Your task to perform on an android device: turn off javascript in the chrome app Image 0: 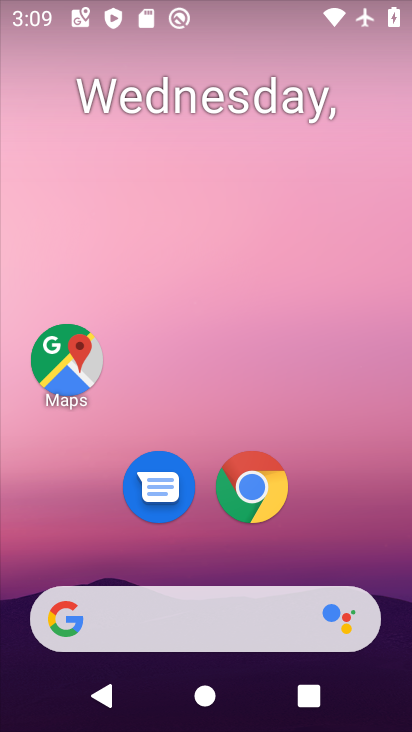
Step 0: drag from (326, 461) to (2, 321)
Your task to perform on an android device: turn off javascript in the chrome app Image 1: 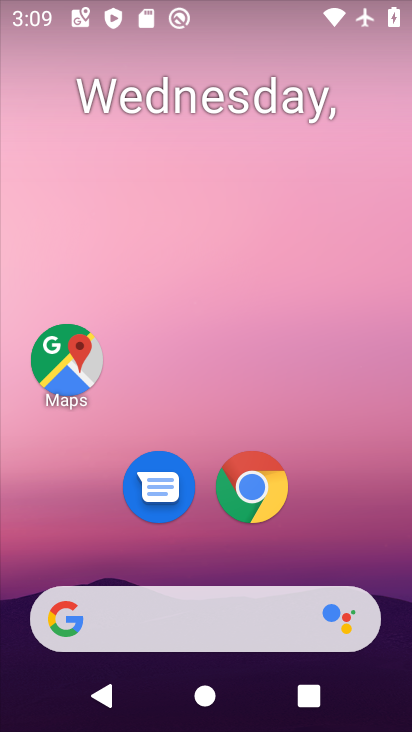
Step 1: drag from (294, 578) to (188, 3)
Your task to perform on an android device: turn off javascript in the chrome app Image 2: 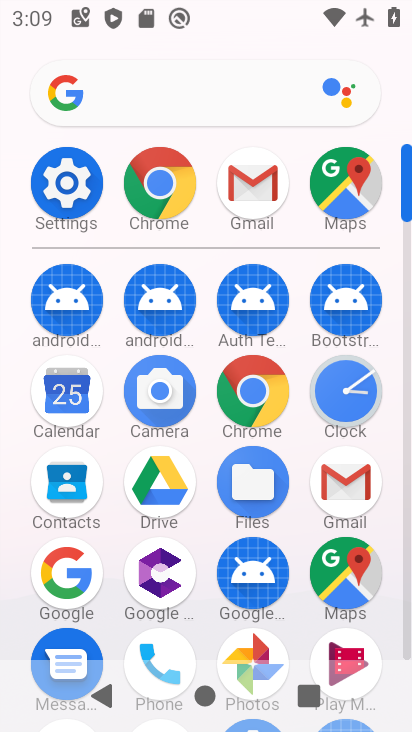
Step 2: click (144, 171)
Your task to perform on an android device: turn off javascript in the chrome app Image 3: 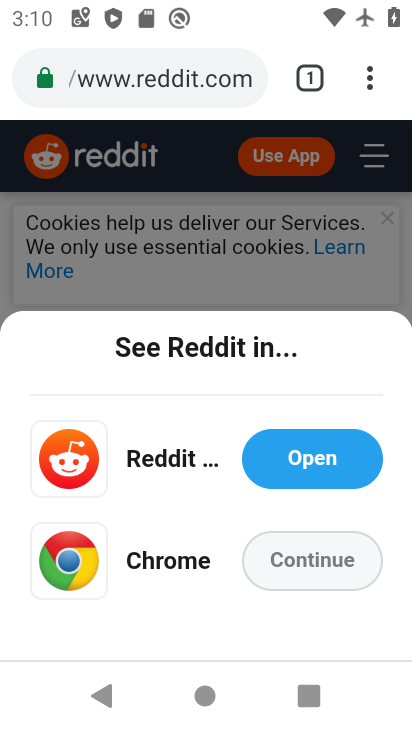
Step 3: drag from (360, 85) to (155, 570)
Your task to perform on an android device: turn off javascript in the chrome app Image 4: 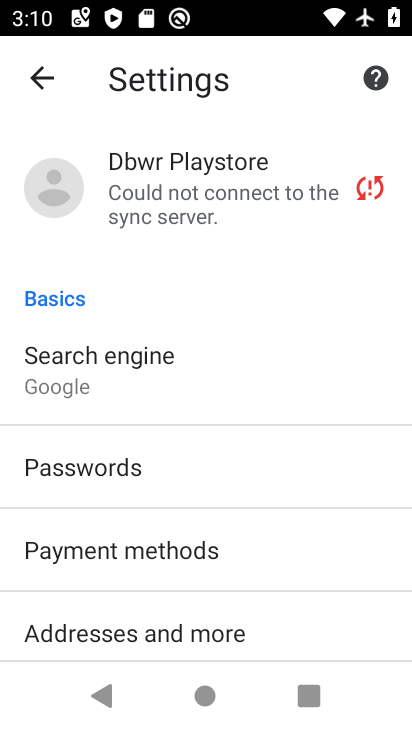
Step 4: drag from (150, 583) to (173, 75)
Your task to perform on an android device: turn off javascript in the chrome app Image 5: 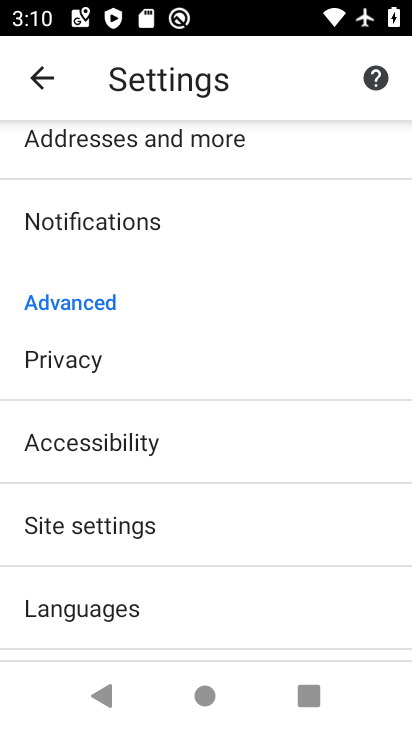
Step 5: click (135, 526)
Your task to perform on an android device: turn off javascript in the chrome app Image 6: 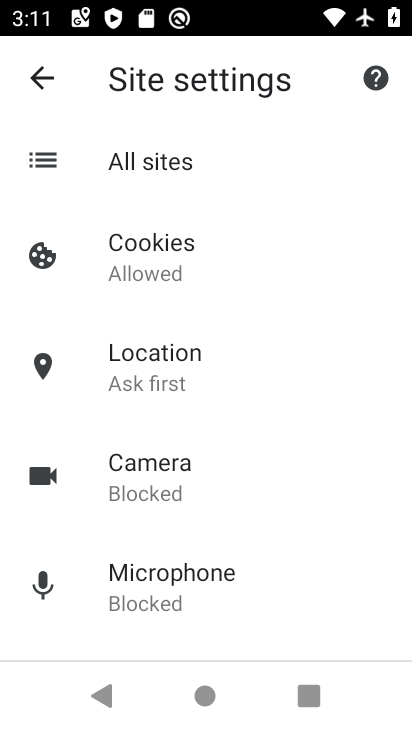
Step 6: drag from (173, 543) to (203, 204)
Your task to perform on an android device: turn off javascript in the chrome app Image 7: 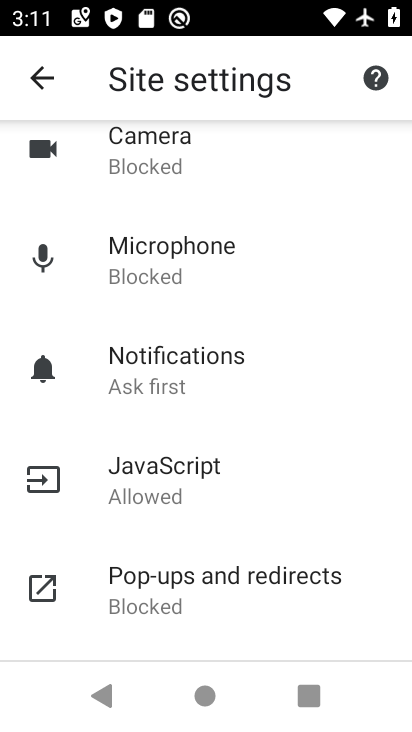
Step 7: click (133, 475)
Your task to perform on an android device: turn off javascript in the chrome app Image 8: 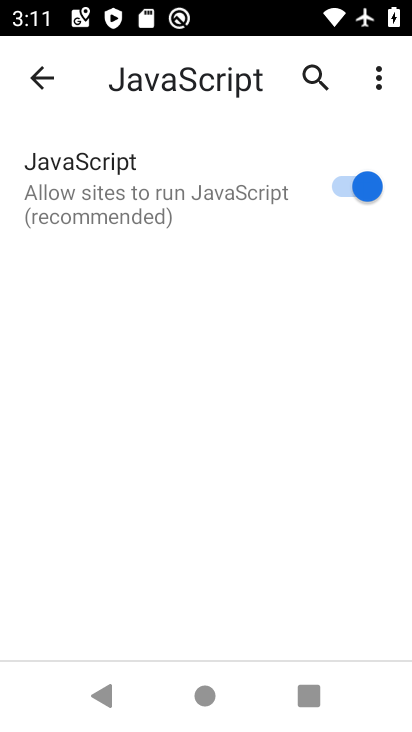
Step 8: click (366, 188)
Your task to perform on an android device: turn off javascript in the chrome app Image 9: 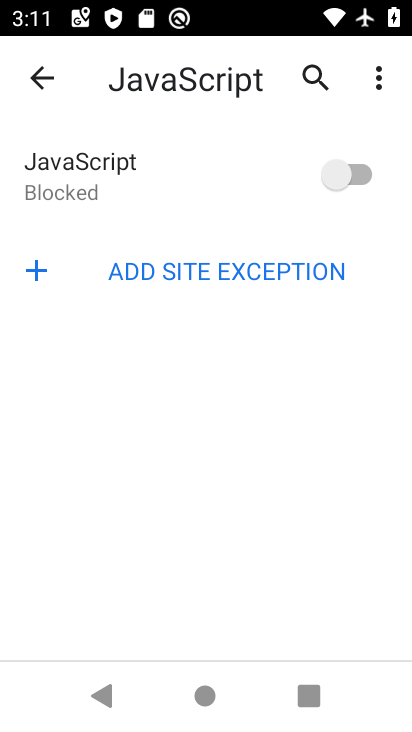
Step 9: task complete